Your task to perform on an android device: stop showing notifications on the lock screen Image 0: 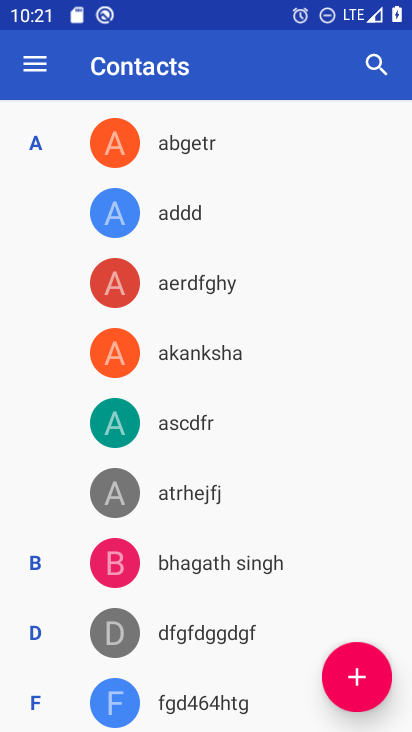
Step 0: press home button
Your task to perform on an android device: stop showing notifications on the lock screen Image 1: 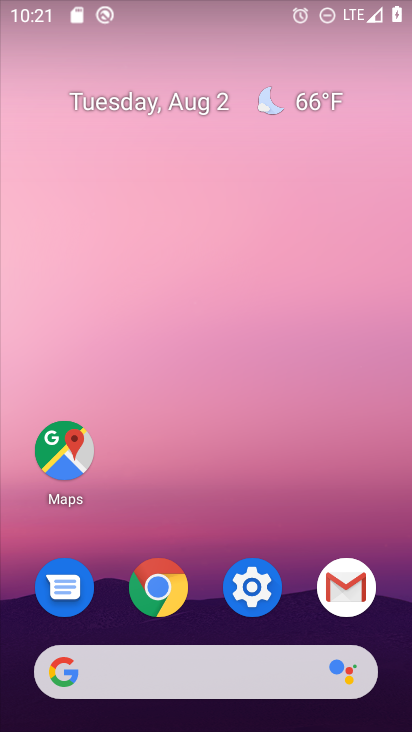
Step 1: click (243, 586)
Your task to perform on an android device: stop showing notifications on the lock screen Image 2: 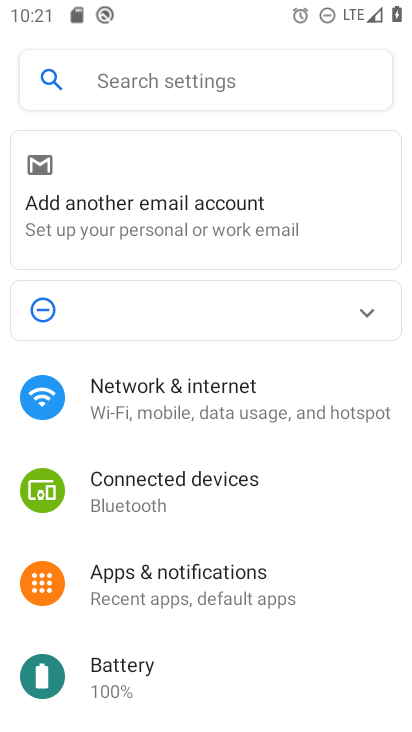
Step 2: click (131, 87)
Your task to perform on an android device: stop showing notifications on the lock screen Image 3: 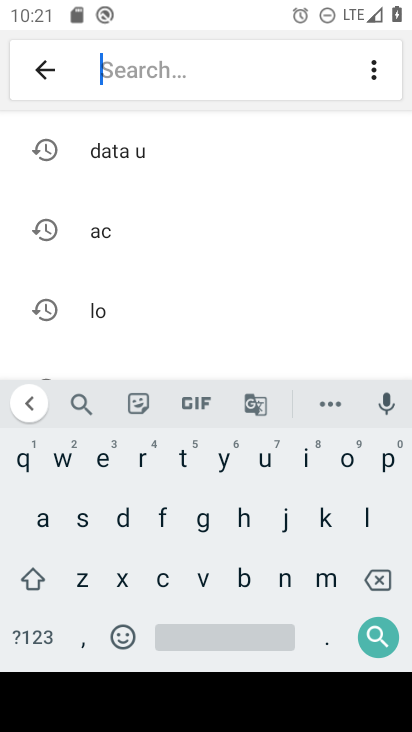
Step 3: click (148, 311)
Your task to perform on an android device: stop showing notifications on the lock screen Image 4: 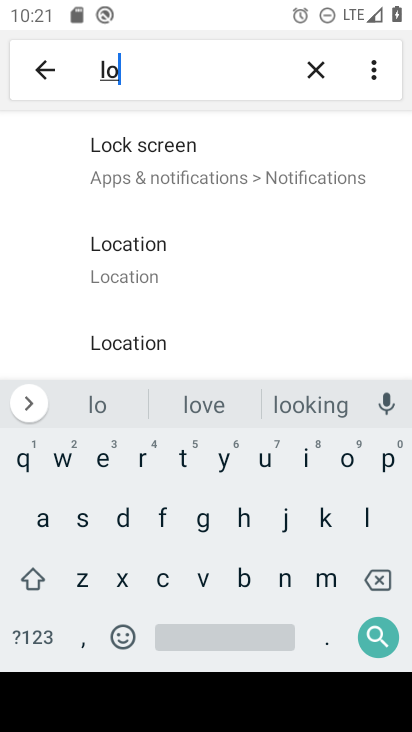
Step 4: click (177, 261)
Your task to perform on an android device: stop showing notifications on the lock screen Image 5: 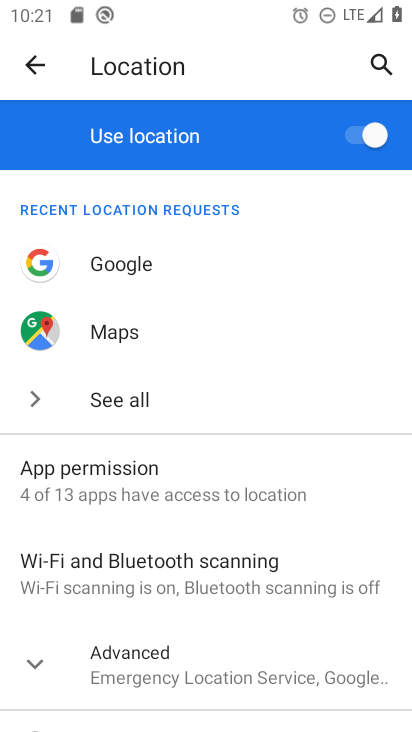
Step 5: click (45, 68)
Your task to perform on an android device: stop showing notifications on the lock screen Image 6: 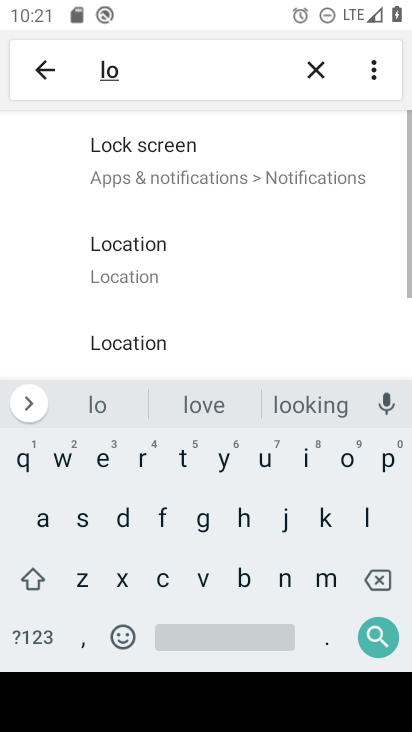
Step 6: click (314, 66)
Your task to perform on an android device: stop showing notifications on the lock screen Image 7: 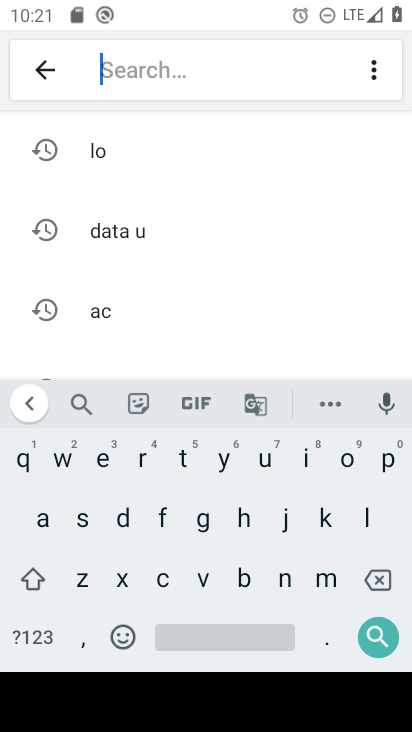
Step 7: click (289, 575)
Your task to perform on an android device: stop showing notifications on the lock screen Image 8: 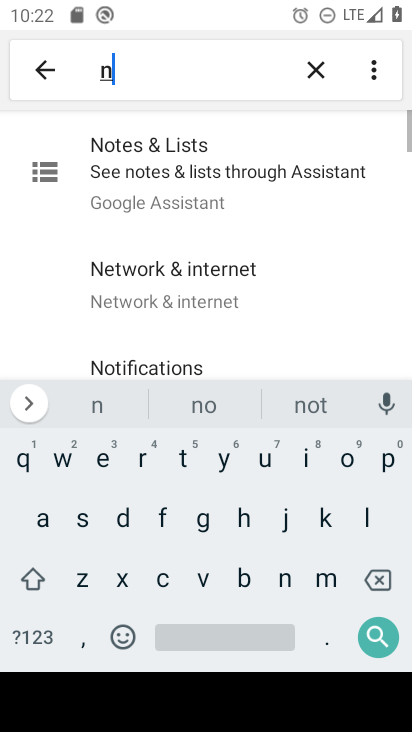
Step 8: click (347, 461)
Your task to perform on an android device: stop showing notifications on the lock screen Image 9: 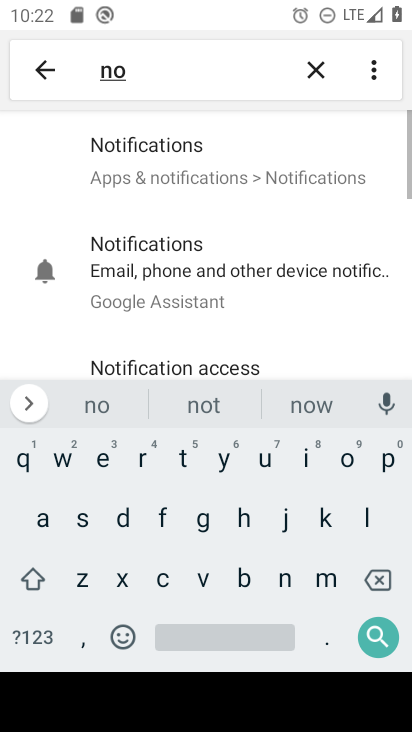
Step 9: click (154, 181)
Your task to perform on an android device: stop showing notifications on the lock screen Image 10: 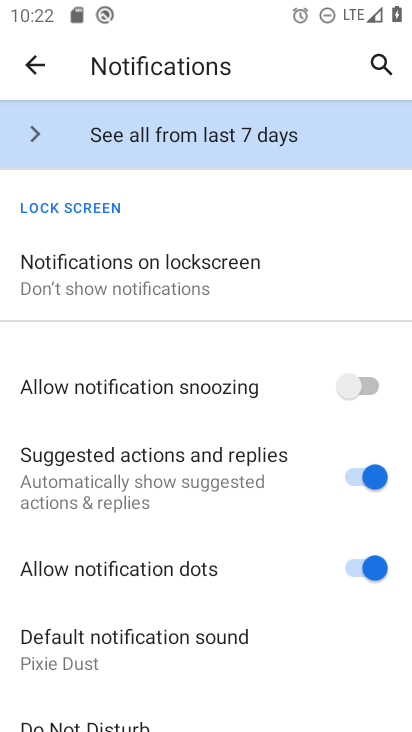
Step 10: click (163, 269)
Your task to perform on an android device: stop showing notifications on the lock screen Image 11: 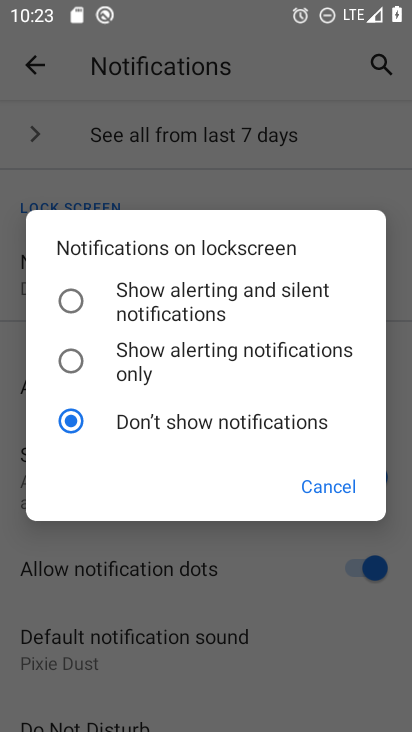
Step 11: task complete